Your task to perform on an android device: find which apps use the phone's location Image 0: 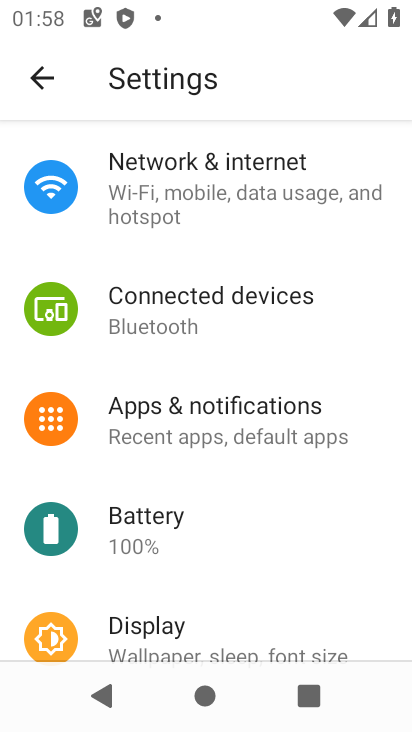
Step 0: press home button
Your task to perform on an android device: find which apps use the phone's location Image 1: 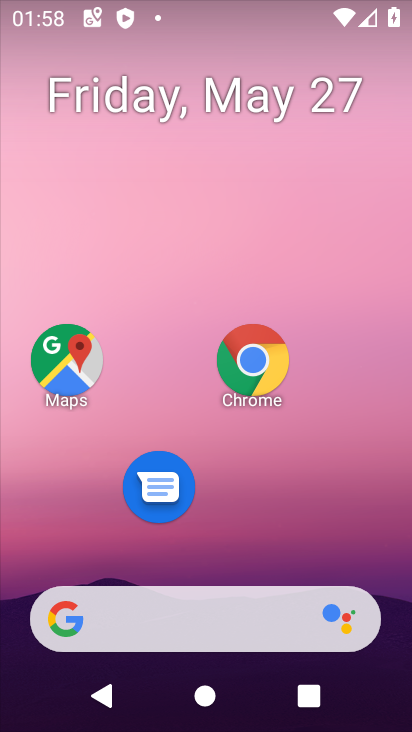
Step 1: drag from (243, 525) to (259, 9)
Your task to perform on an android device: find which apps use the phone's location Image 2: 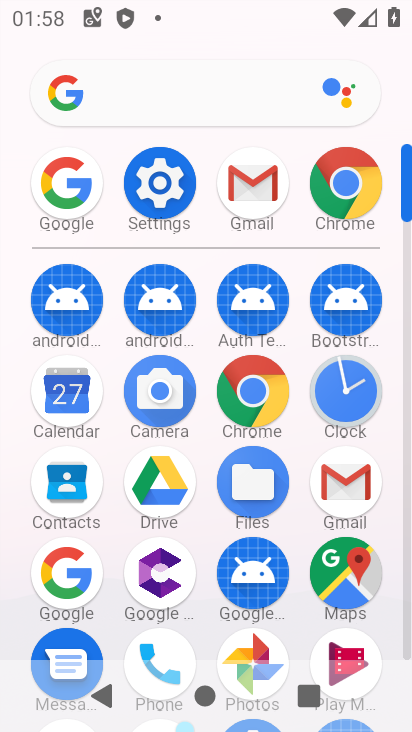
Step 2: click (161, 181)
Your task to perform on an android device: find which apps use the phone's location Image 3: 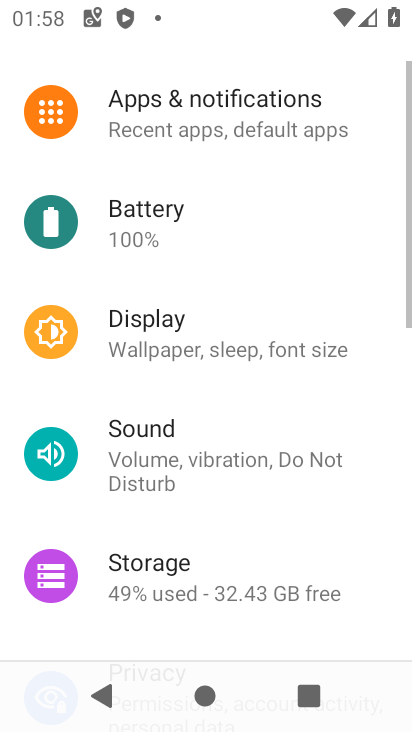
Step 3: drag from (268, 600) to (264, 230)
Your task to perform on an android device: find which apps use the phone's location Image 4: 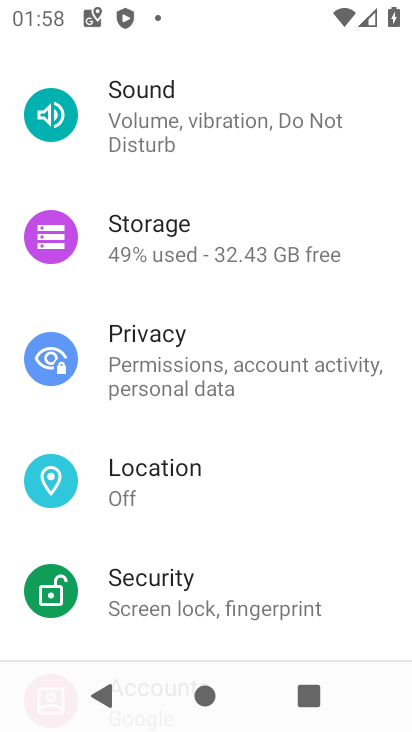
Step 4: click (167, 448)
Your task to perform on an android device: find which apps use the phone's location Image 5: 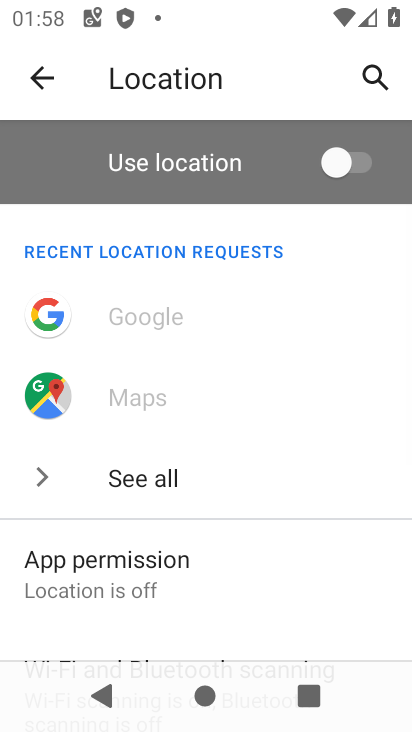
Step 5: click (139, 580)
Your task to perform on an android device: find which apps use the phone's location Image 6: 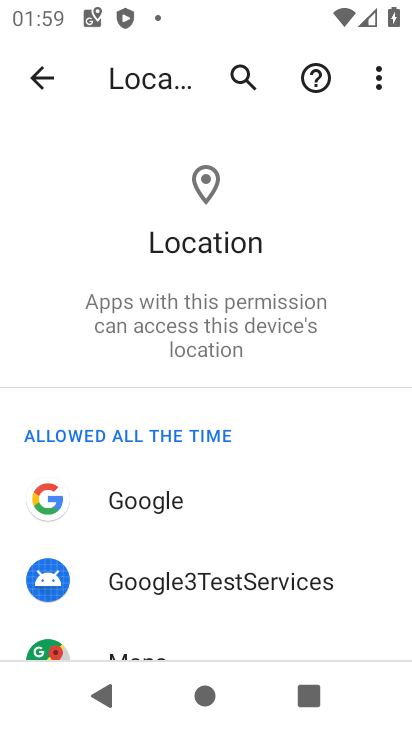
Step 6: task complete